Your task to perform on an android device: Is it going to rain today? Image 0: 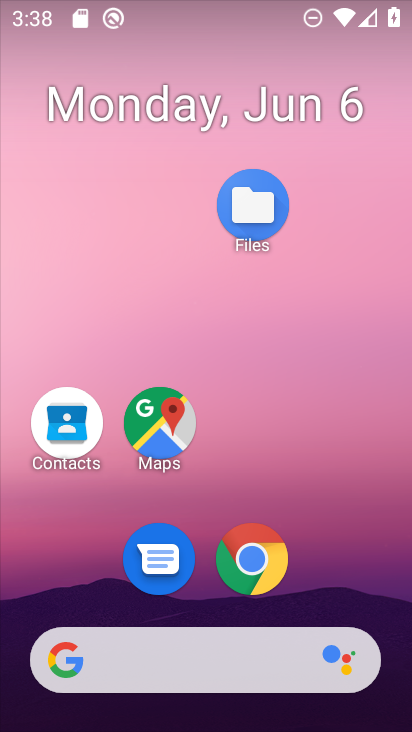
Step 0: drag from (165, 672) to (292, 128)
Your task to perform on an android device: Is it going to rain today? Image 1: 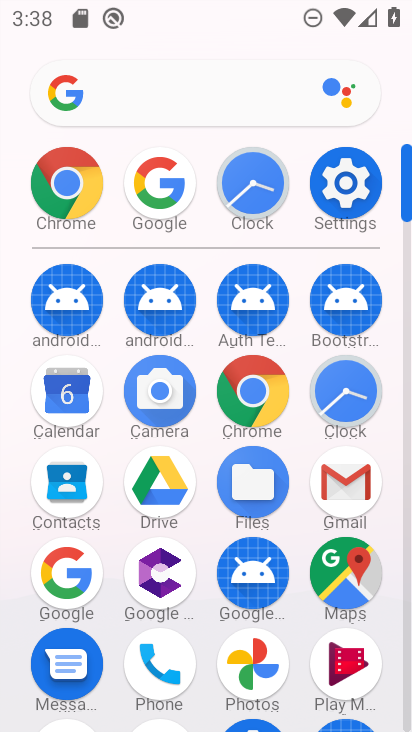
Step 1: click (81, 568)
Your task to perform on an android device: Is it going to rain today? Image 2: 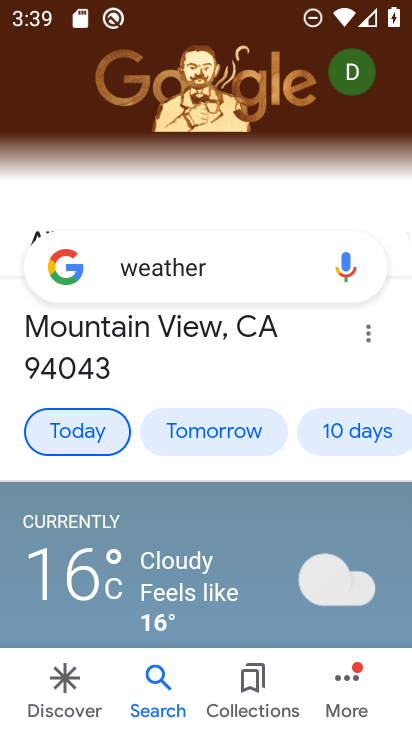
Step 2: task complete